Your task to perform on an android device: Go to Google Image 0: 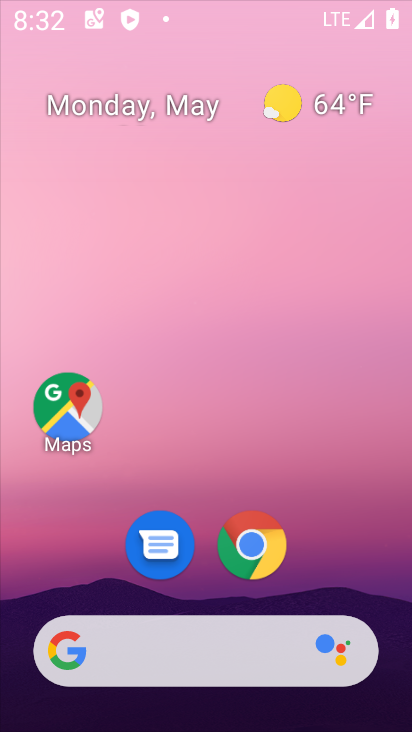
Step 0: drag from (202, 47) to (78, 69)
Your task to perform on an android device: Go to Google Image 1: 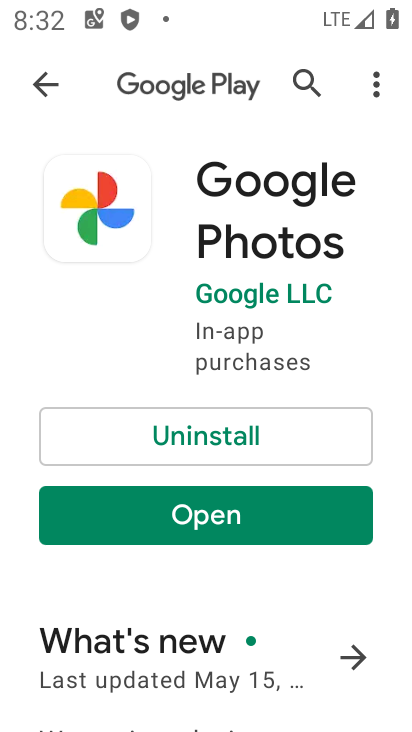
Step 1: press home button
Your task to perform on an android device: Go to Google Image 2: 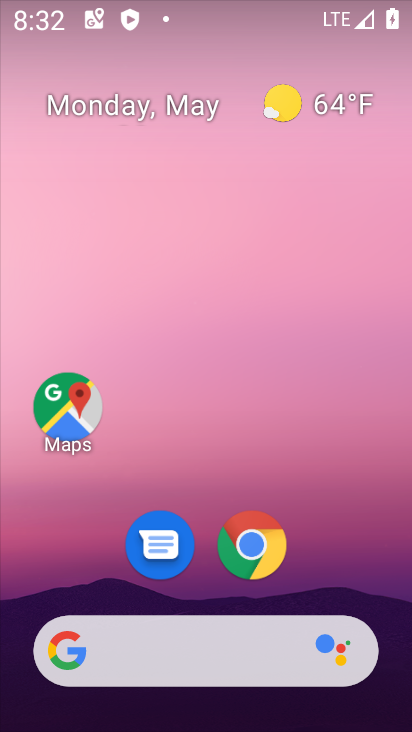
Step 2: drag from (145, 663) to (65, 330)
Your task to perform on an android device: Go to Google Image 3: 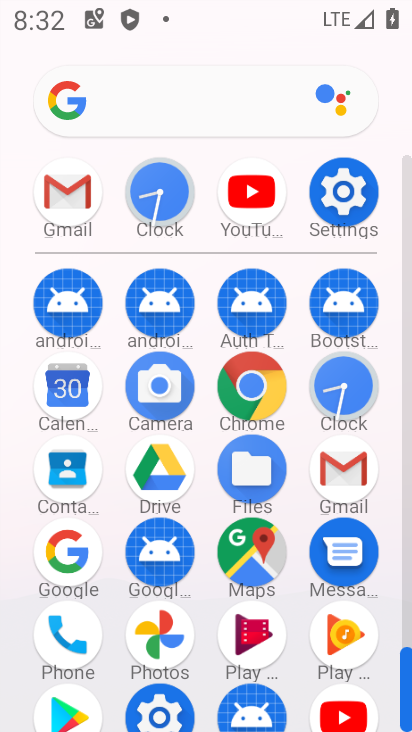
Step 3: click (81, 559)
Your task to perform on an android device: Go to Google Image 4: 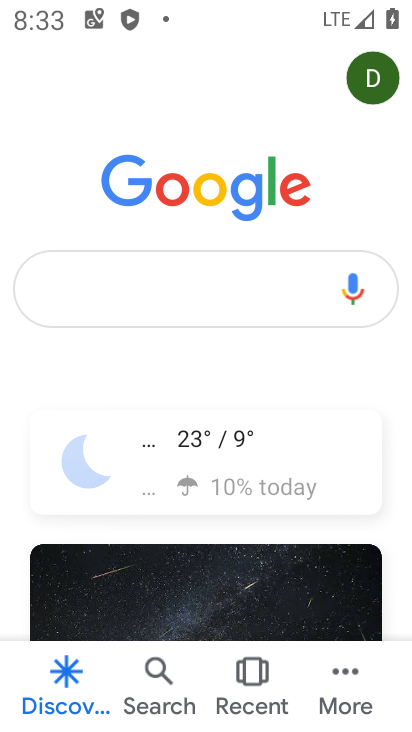
Step 4: task complete